Your task to perform on an android device: Open Yahoo.com Image 0: 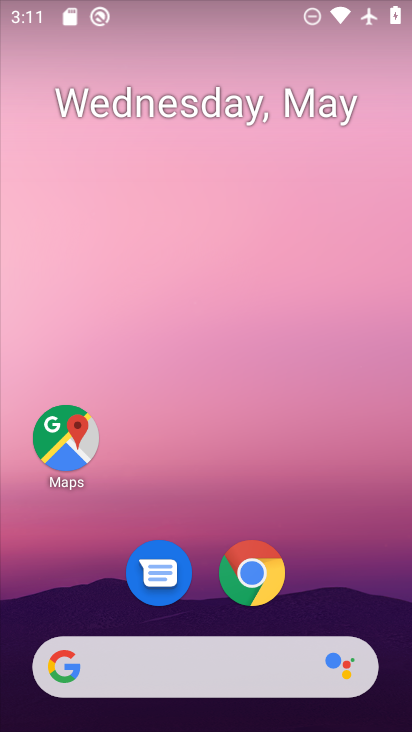
Step 0: click (259, 571)
Your task to perform on an android device: Open Yahoo.com Image 1: 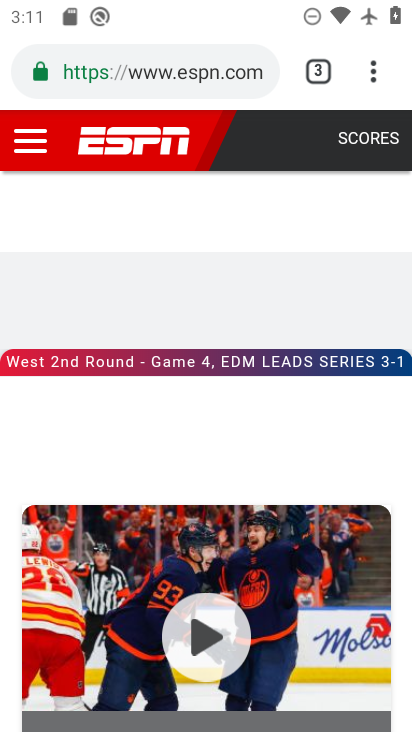
Step 1: click (224, 77)
Your task to perform on an android device: Open Yahoo.com Image 2: 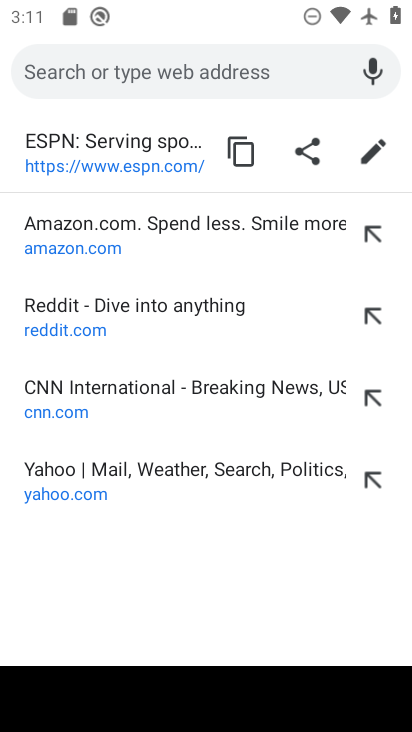
Step 2: type "yahoo.com"
Your task to perform on an android device: Open Yahoo.com Image 3: 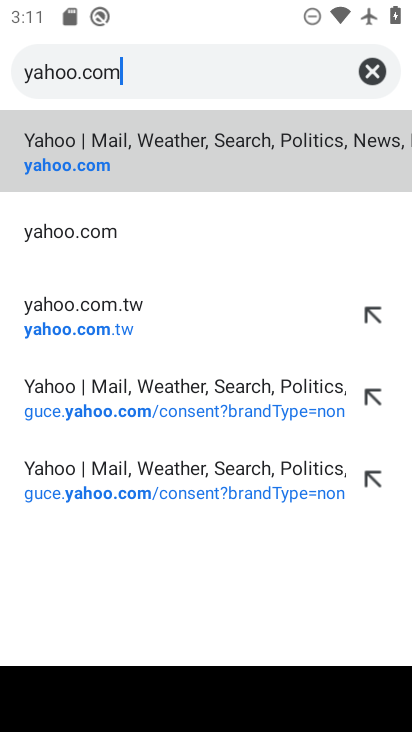
Step 3: click (60, 150)
Your task to perform on an android device: Open Yahoo.com Image 4: 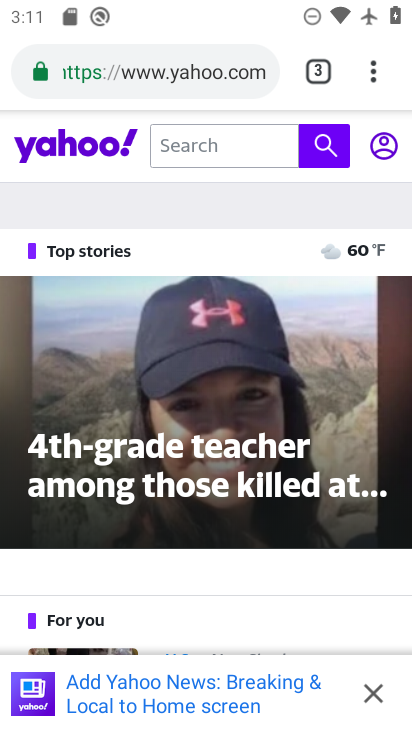
Step 4: task complete